Your task to perform on an android device: Go to CNN.com Image 0: 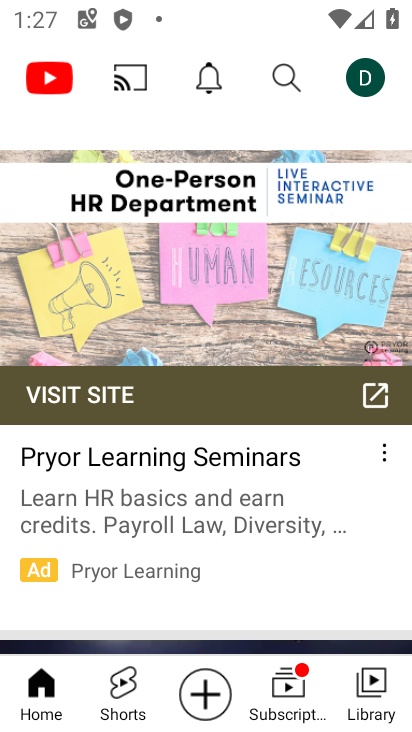
Step 0: press home button
Your task to perform on an android device: Go to CNN.com Image 1: 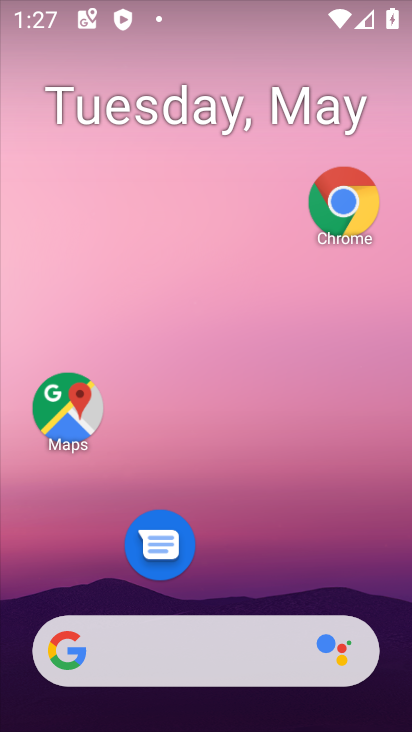
Step 1: click (202, 653)
Your task to perform on an android device: Go to CNN.com Image 2: 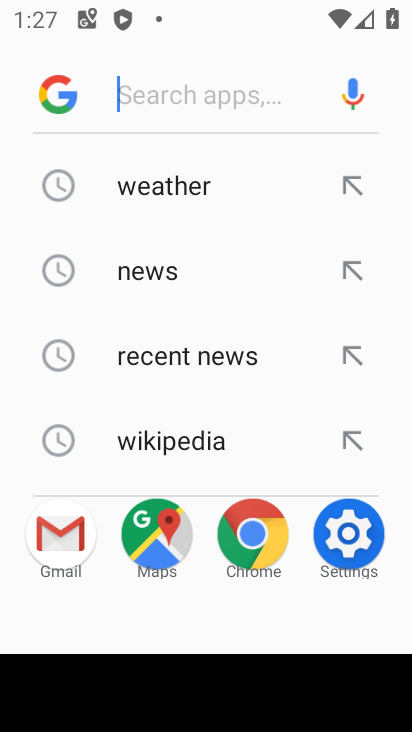
Step 2: type "cnn"
Your task to perform on an android device: Go to CNN.com Image 3: 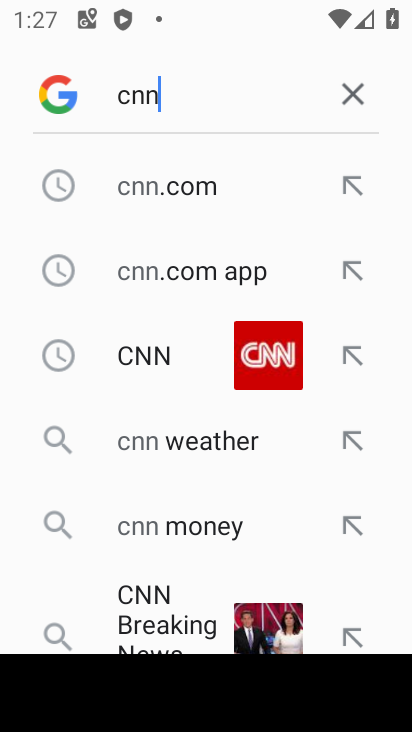
Step 3: click (186, 362)
Your task to perform on an android device: Go to CNN.com Image 4: 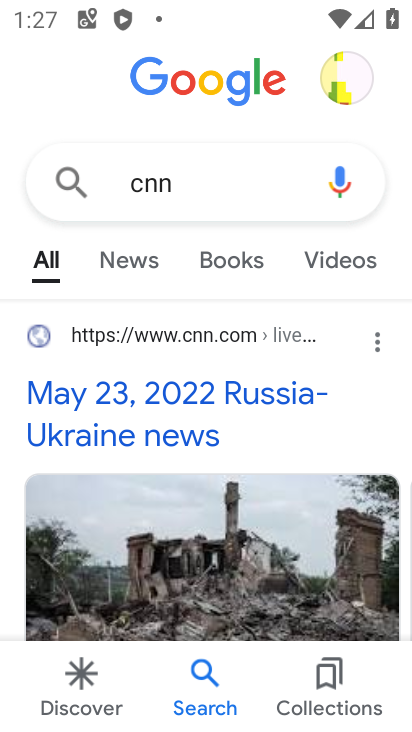
Step 4: click (171, 381)
Your task to perform on an android device: Go to CNN.com Image 5: 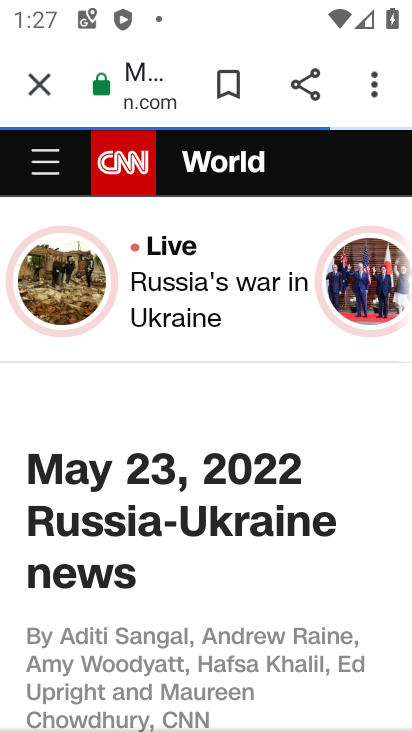
Step 5: task complete